Your task to perform on an android device: Turn off the flashlight Image 0: 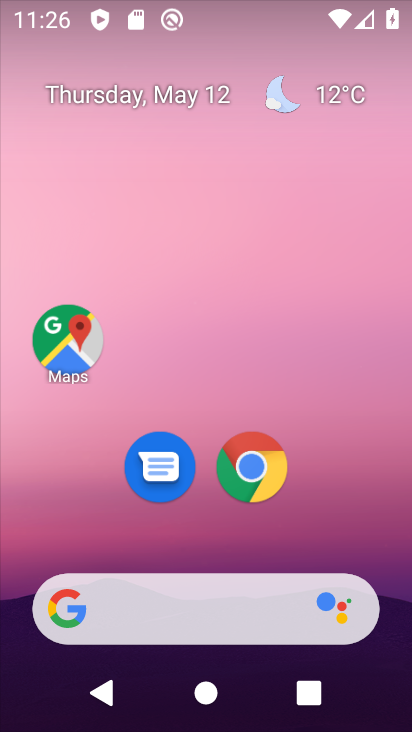
Step 0: drag from (295, 462) to (227, 33)
Your task to perform on an android device: Turn off the flashlight Image 1: 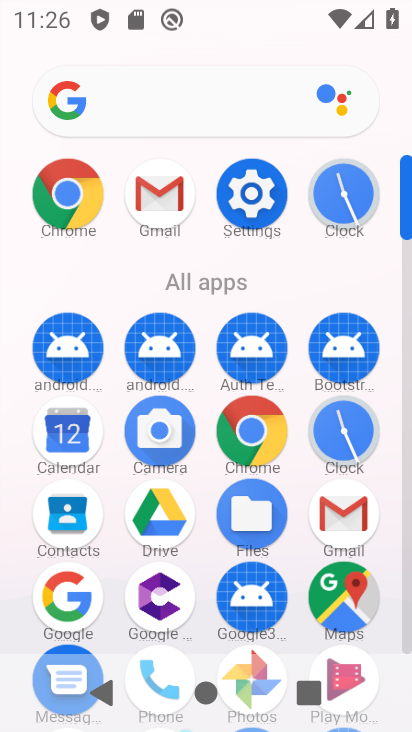
Step 1: click (246, 196)
Your task to perform on an android device: Turn off the flashlight Image 2: 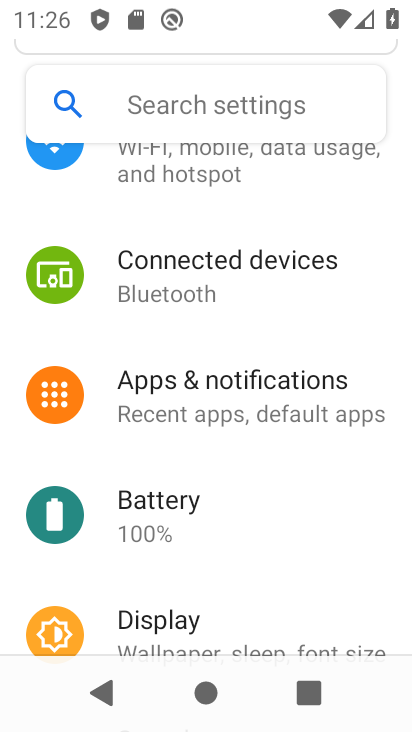
Step 2: drag from (287, 201) to (292, 530)
Your task to perform on an android device: Turn off the flashlight Image 3: 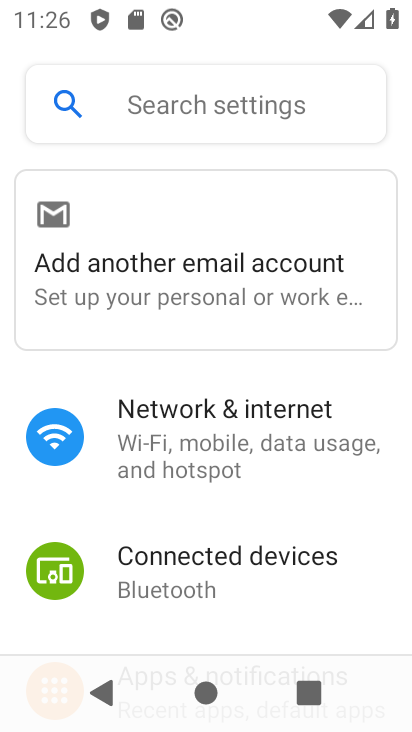
Step 3: click (261, 412)
Your task to perform on an android device: Turn off the flashlight Image 4: 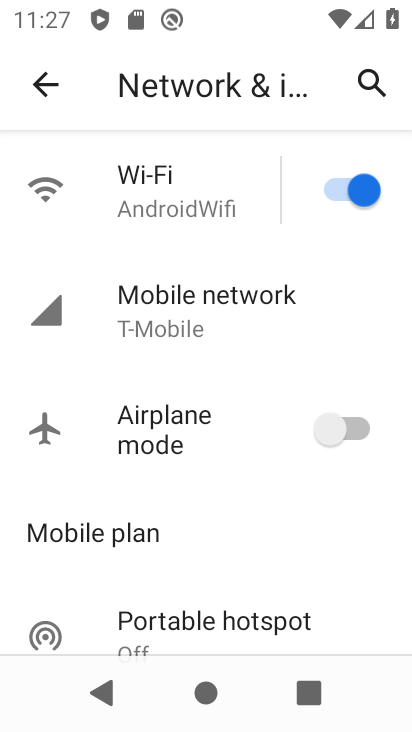
Step 4: drag from (229, 522) to (258, 109)
Your task to perform on an android device: Turn off the flashlight Image 5: 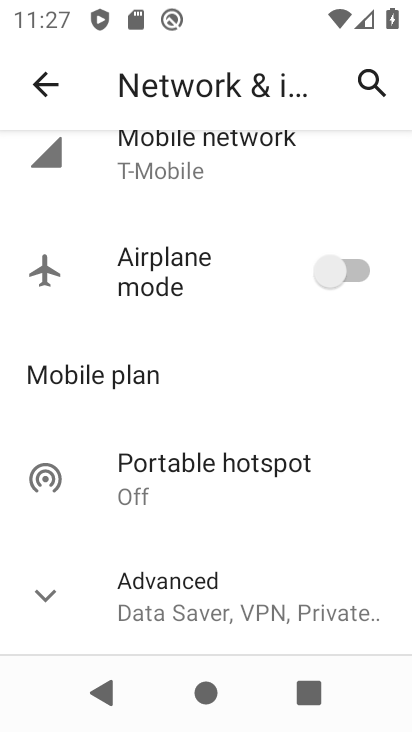
Step 5: click (47, 593)
Your task to perform on an android device: Turn off the flashlight Image 6: 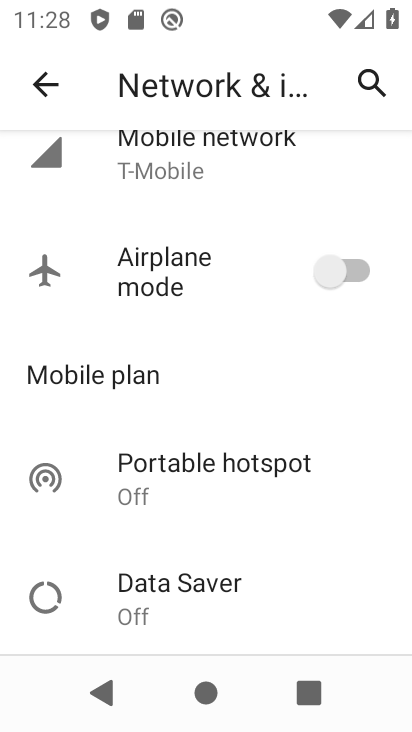
Step 6: task complete